Your task to perform on an android device: move an email to a new category in the gmail app Image 0: 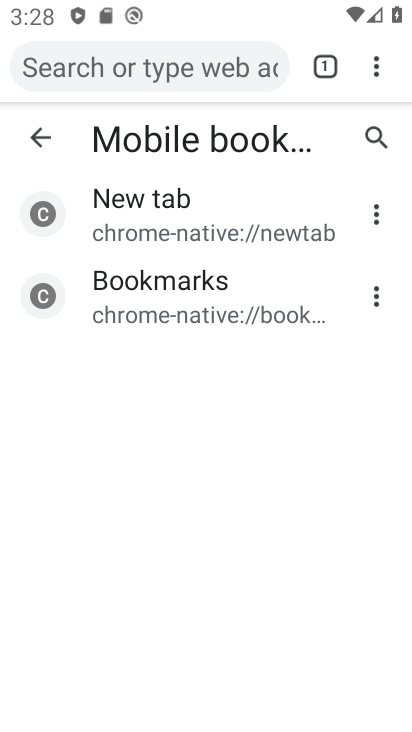
Step 0: press home button
Your task to perform on an android device: move an email to a new category in the gmail app Image 1: 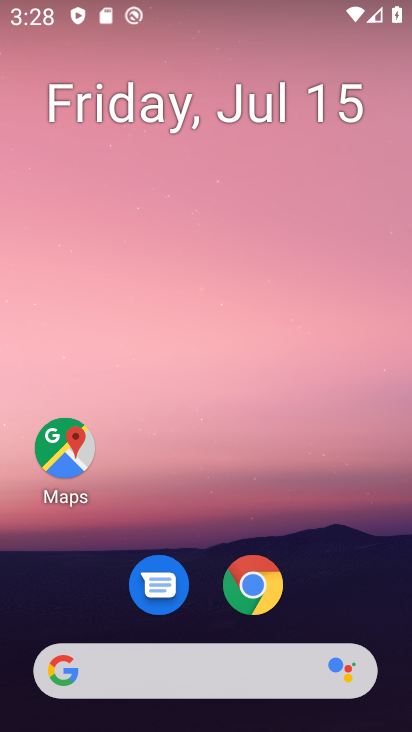
Step 1: drag from (240, 654) to (203, 1)
Your task to perform on an android device: move an email to a new category in the gmail app Image 2: 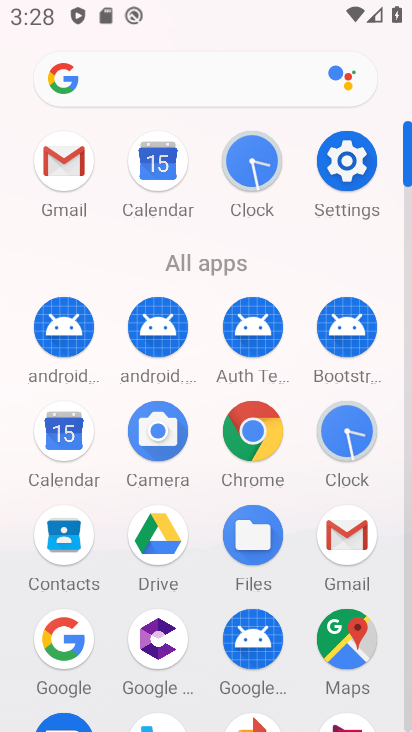
Step 2: click (70, 183)
Your task to perform on an android device: move an email to a new category in the gmail app Image 3: 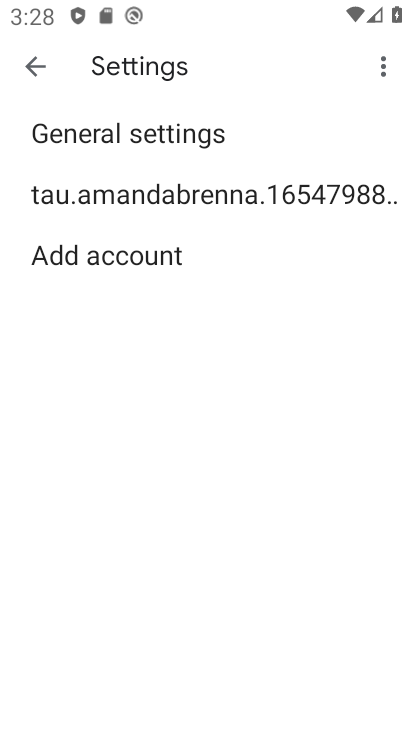
Step 3: click (42, 74)
Your task to perform on an android device: move an email to a new category in the gmail app Image 4: 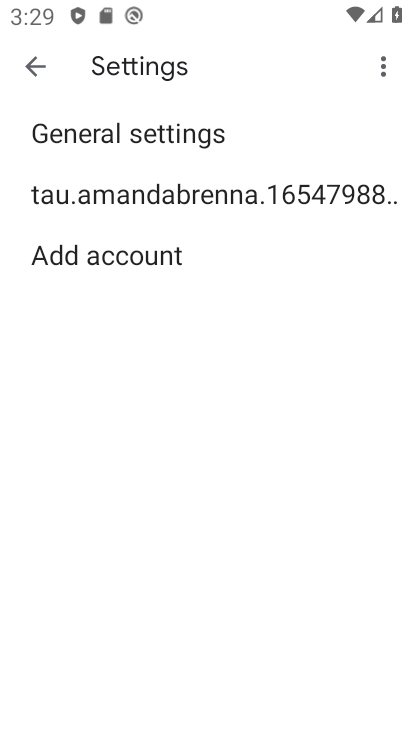
Step 4: click (31, 83)
Your task to perform on an android device: move an email to a new category in the gmail app Image 5: 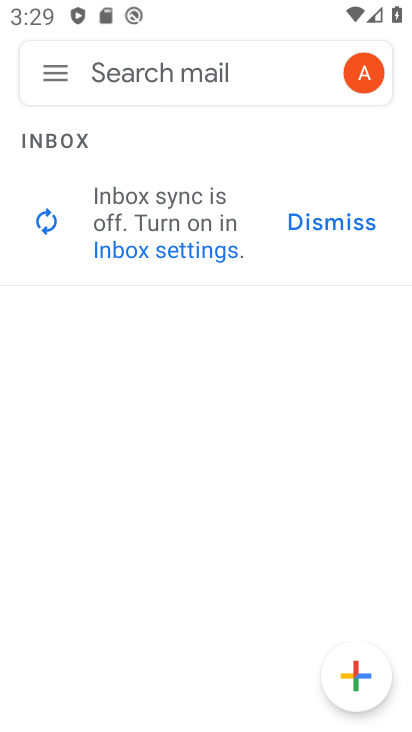
Step 5: task complete